Your task to perform on an android device: Empty the shopping cart on bestbuy. Add usb-c to usb-a to the cart on bestbuy Image 0: 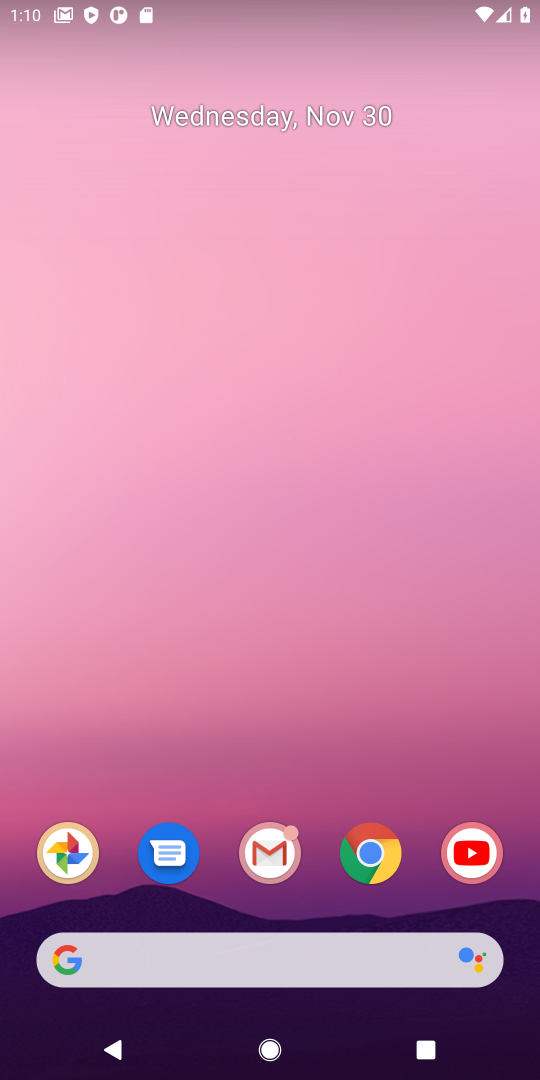
Step 0: click (363, 864)
Your task to perform on an android device: Empty the shopping cart on bestbuy. Add usb-c to usb-a to the cart on bestbuy Image 1: 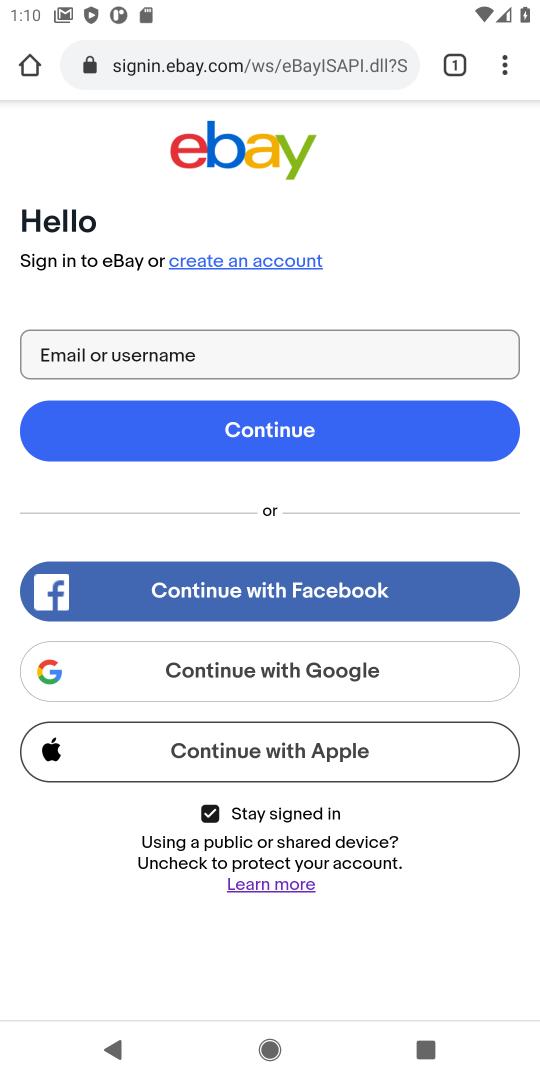
Step 1: click (238, 65)
Your task to perform on an android device: Empty the shopping cart on bestbuy. Add usb-c to usb-a to the cart on bestbuy Image 2: 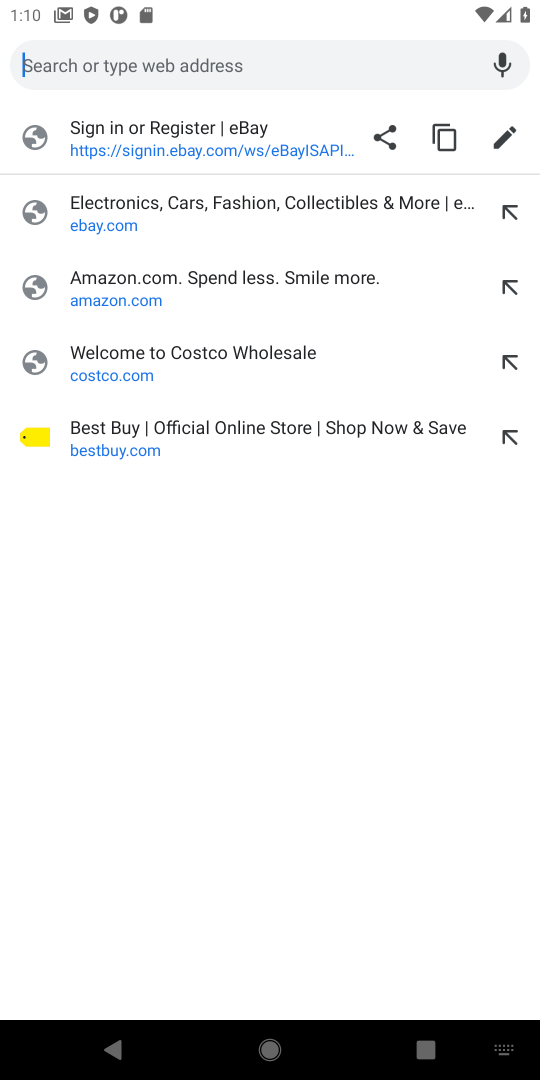
Step 2: click (104, 443)
Your task to perform on an android device: Empty the shopping cart on bestbuy. Add usb-c to usb-a to the cart on bestbuy Image 3: 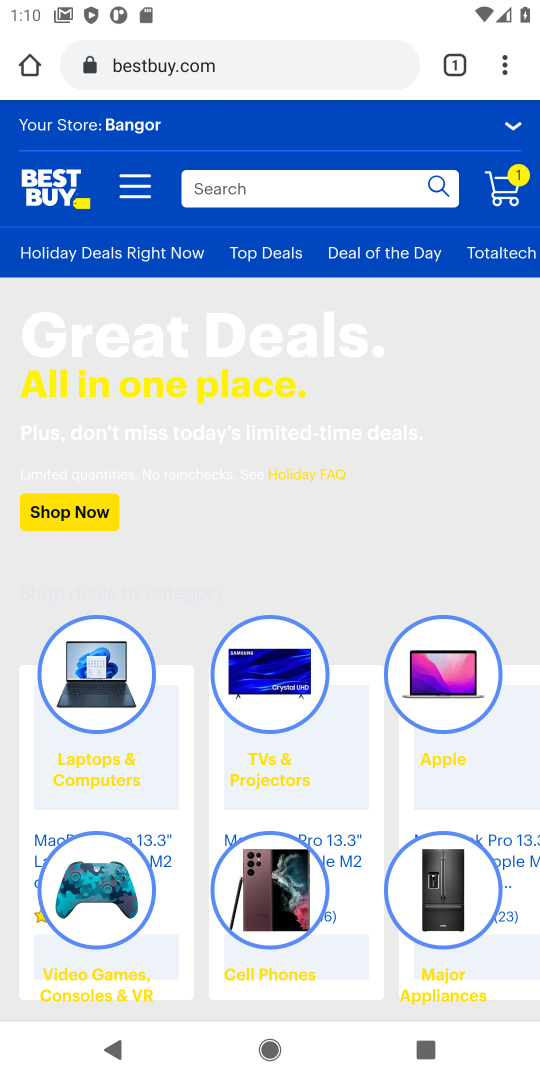
Step 3: click (502, 190)
Your task to perform on an android device: Empty the shopping cart on bestbuy. Add usb-c to usb-a to the cart on bestbuy Image 4: 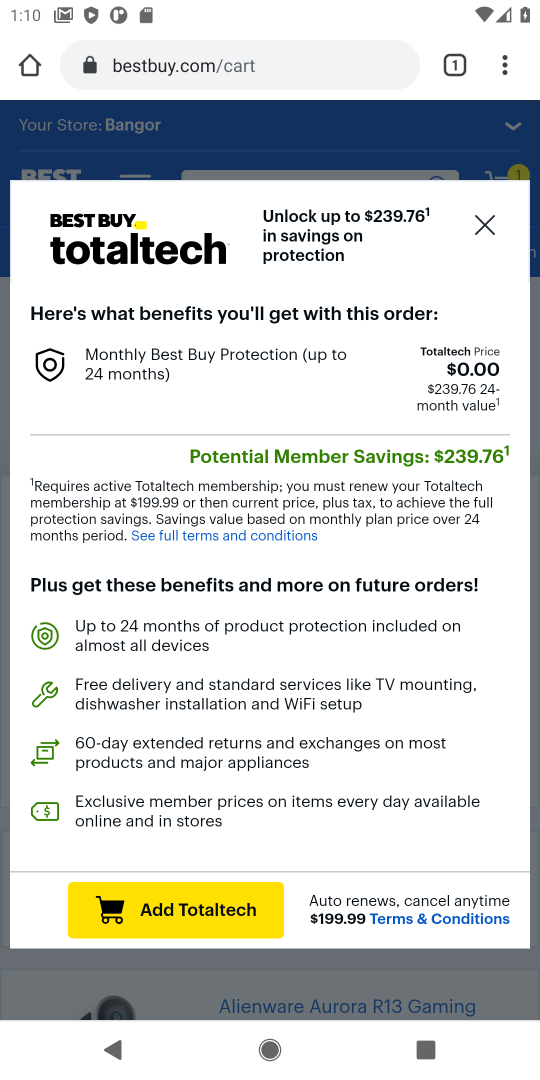
Step 4: click (483, 225)
Your task to perform on an android device: Empty the shopping cart on bestbuy. Add usb-c to usb-a to the cart on bestbuy Image 5: 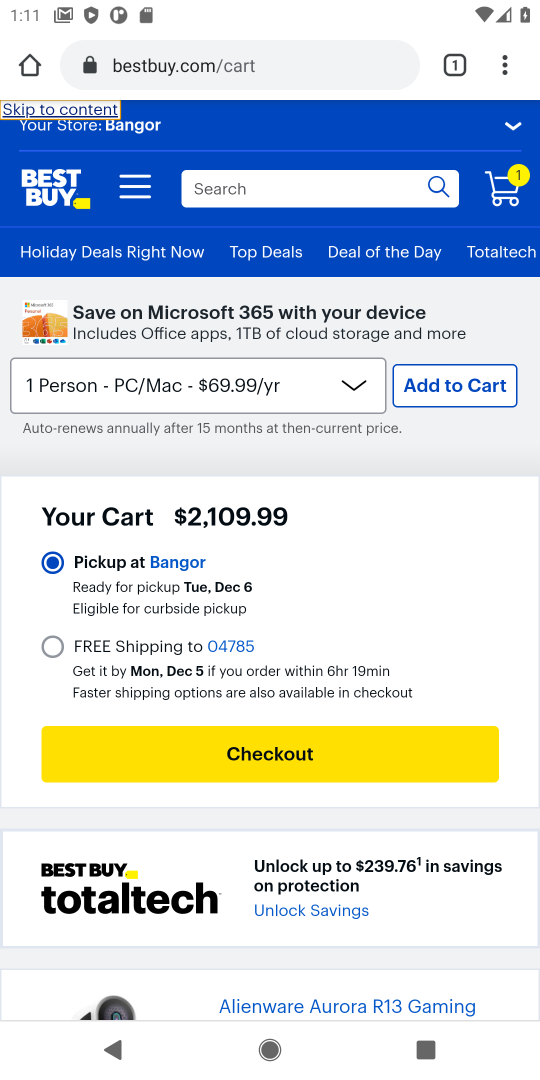
Step 5: drag from (432, 541) to (410, 135)
Your task to perform on an android device: Empty the shopping cart on bestbuy. Add usb-c to usb-a to the cart on bestbuy Image 6: 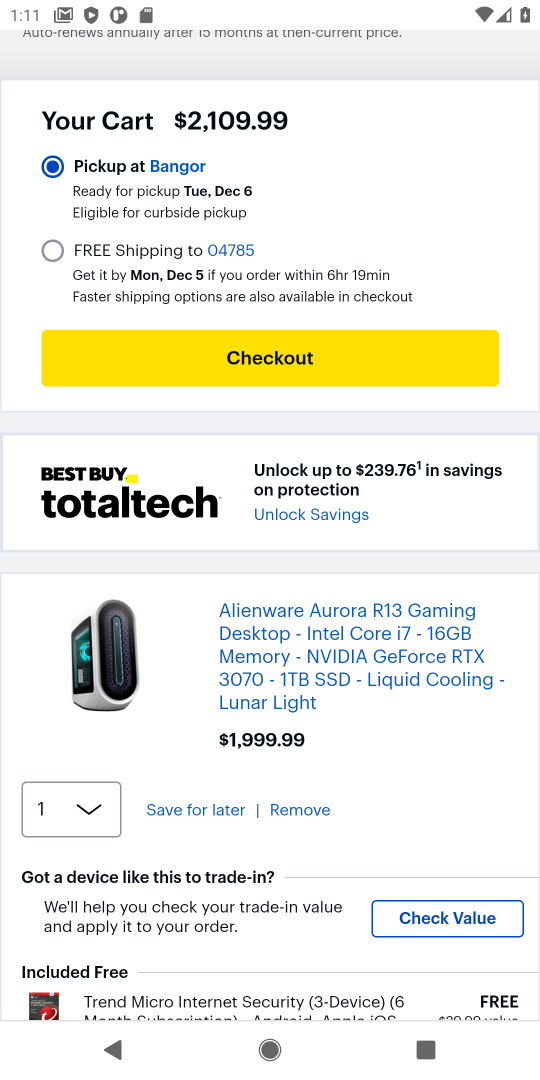
Step 6: drag from (419, 499) to (414, 235)
Your task to perform on an android device: Empty the shopping cart on bestbuy. Add usb-c to usb-a to the cart on bestbuy Image 7: 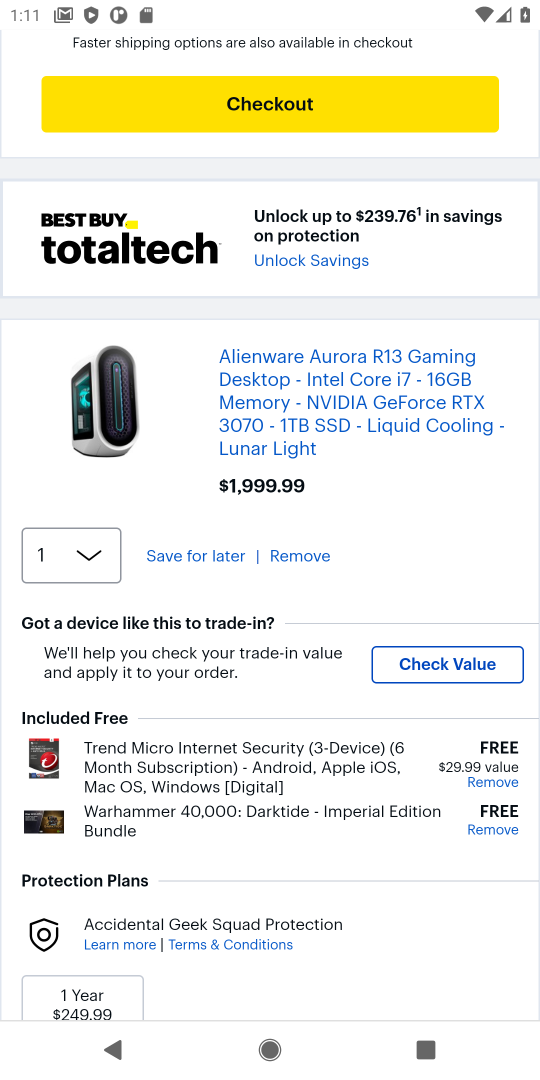
Step 7: click (305, 551)
Your task to perform on an android device: Empty the shopping cart on bestbuy. Add usb-c to usb-a to the cart on bestbuy Image 8: 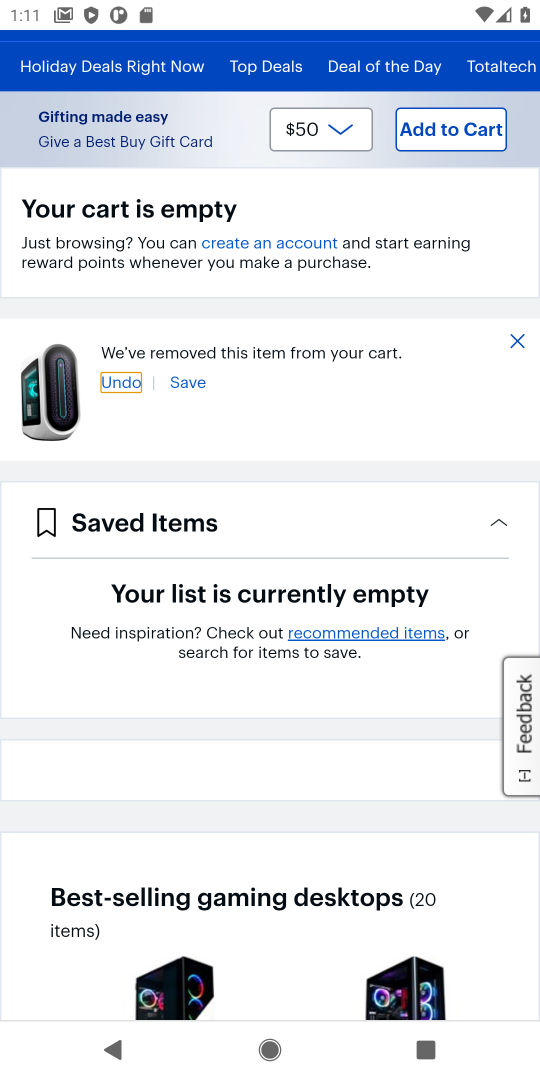
Step 8: drag from (493, 256) to (468, 587)
Your task to perform on an android device: Empty the shopping cart on bestbuy. Add usb-c to usb-a to the cart on bestbuy Image 9: 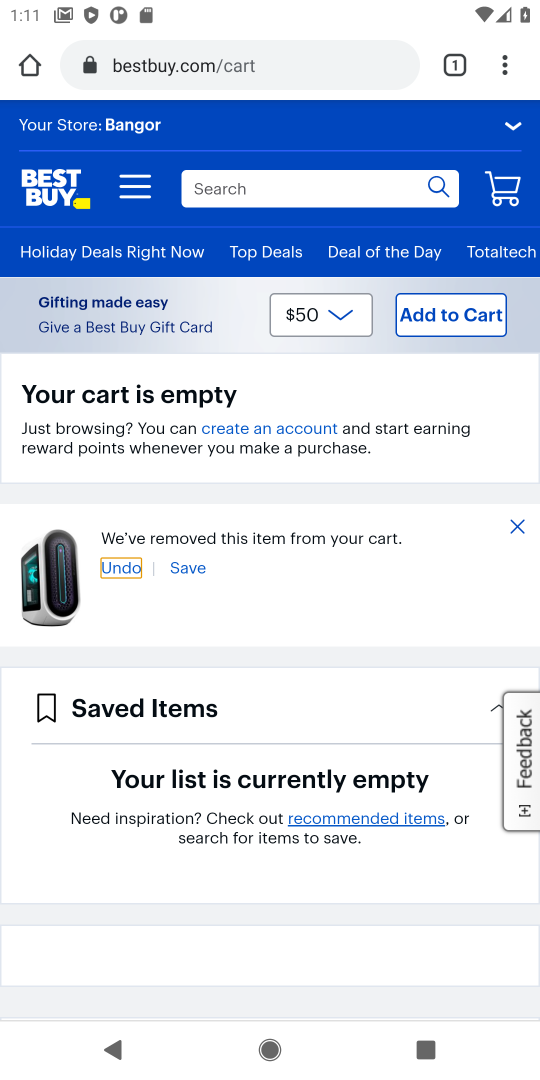
Step 9: click (245, 197)
Your task to perform on an android device: Empty the shopping cart on bestbuy. Add usb-c to usb-a to the cart on bestbuy Image 10: 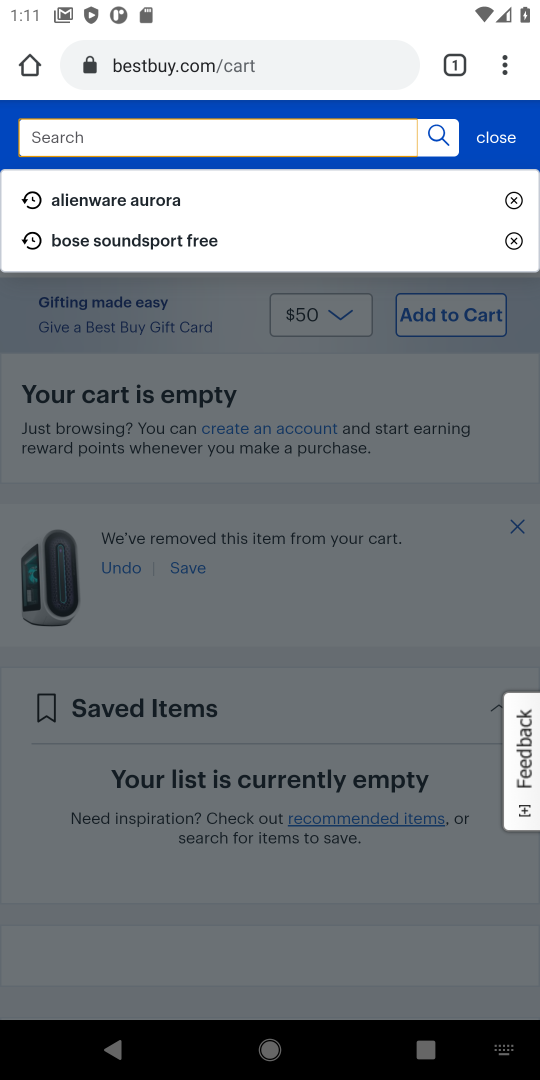
Step 10: type "usb-c to usb-a"
Your task to perform on an android device: Empty the shopping cart on bestbuy. Add usb-c to usb-a to the cart on bestbuy Image 11: 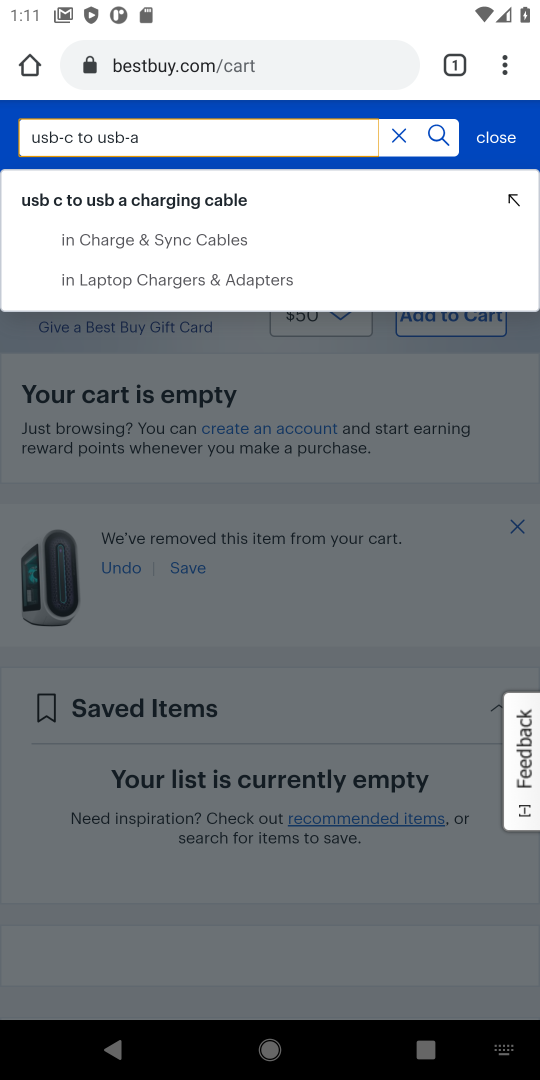
Step 11: click (164, 203)
Your task to perform on an android device: Empty the shopping cart on bestbuy. Add usb-c to usb-a to the cart on bestbuy Image 12: 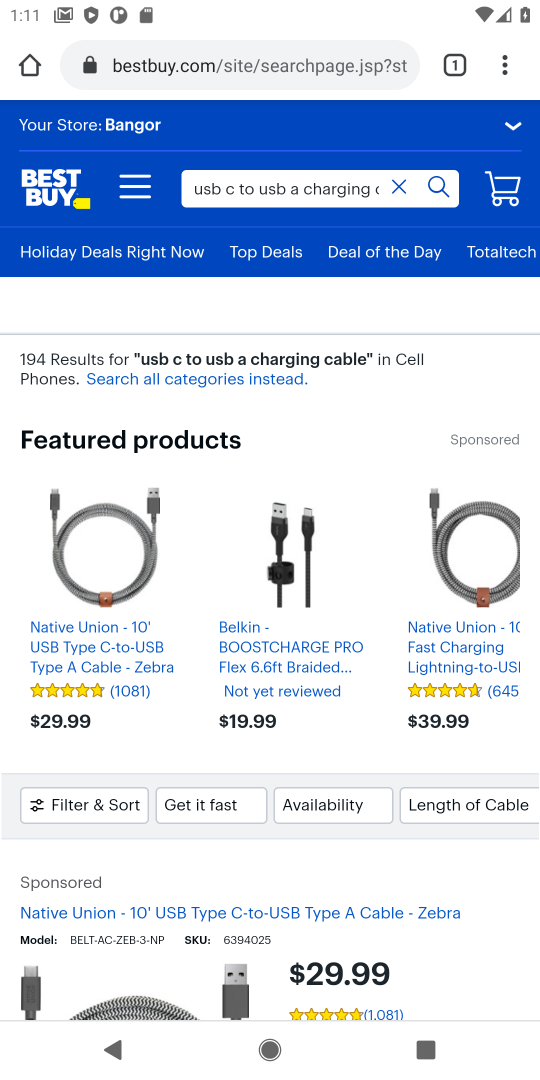
Step 12: drag from (353, 829) to (342, 560)
Your task to perform on an android device: Empty the shopping cart on bestbuy. Add usb-c to usb-a to the cart on bestbuy Image 13: 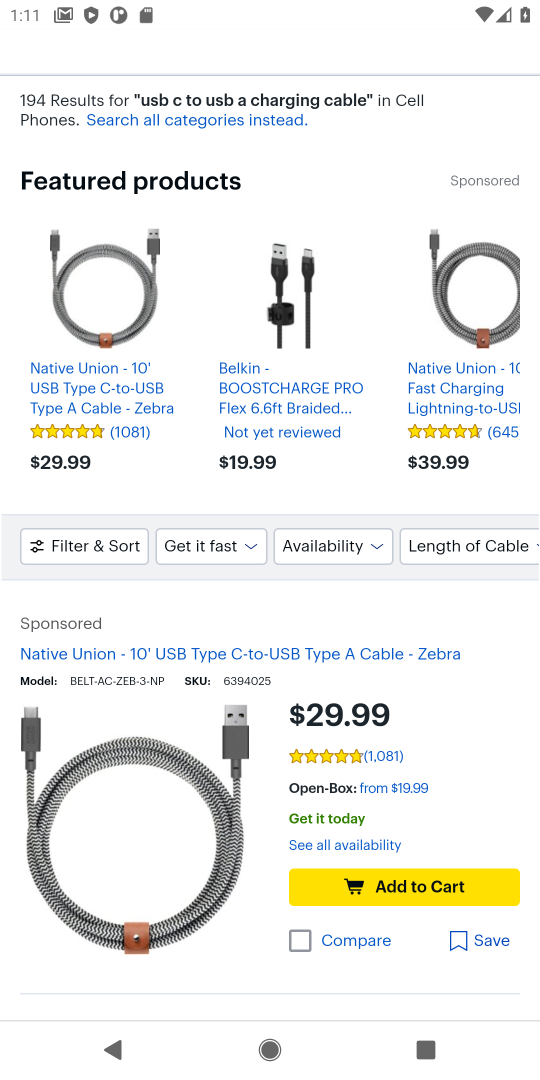
Step 13: click (414, 887)
Your task to perform on an android device: Empty the shopping cart on bestbuy. Add usb-c to usb-a to the cart on bestbuy Image 14: 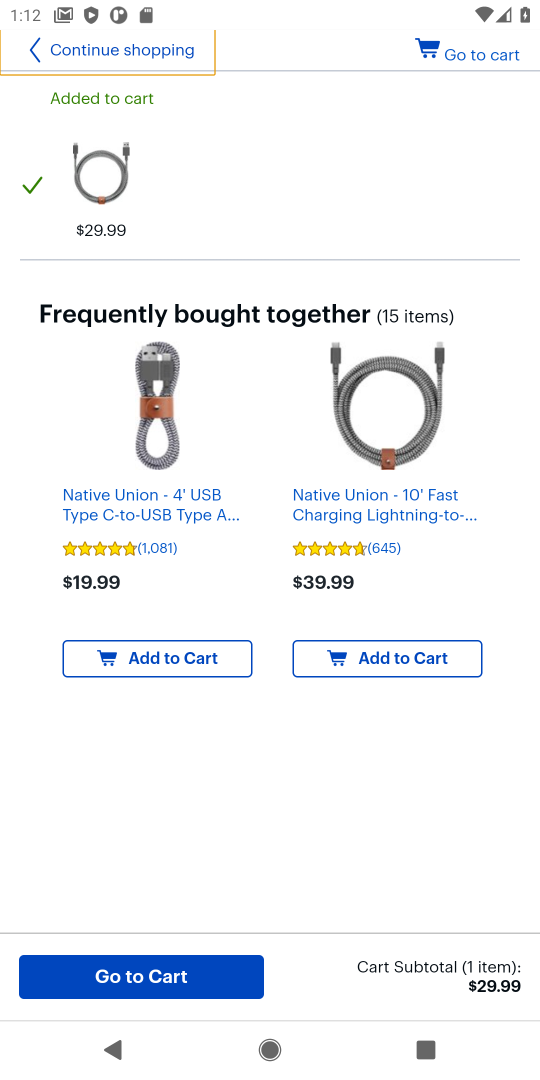
Step 14: task complete